Your task to perform on an android device: Go to Wikipedia Image 0: 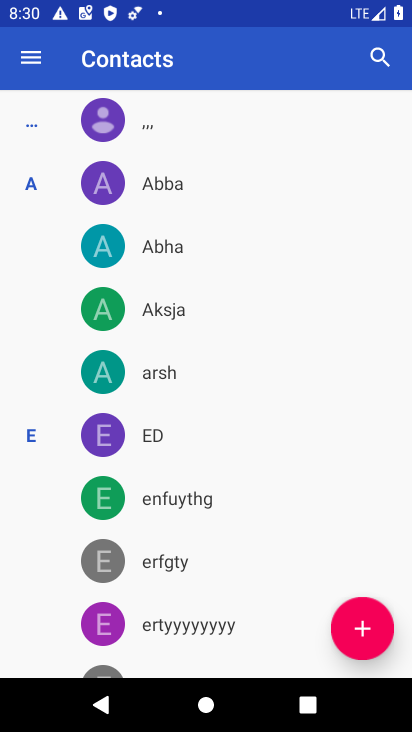
Step 0: press home button
Your task to perform on an android device: Go to Wikipedia Image 1: 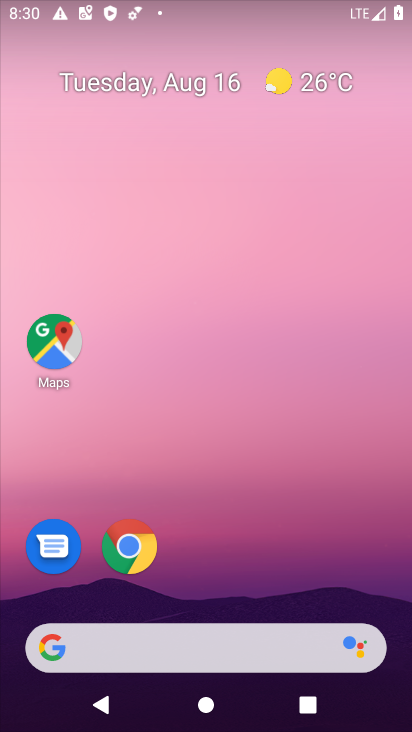
Step 1: click (122, 551)
Your task to perform on an android device: Go to Wikipedia Image 2: 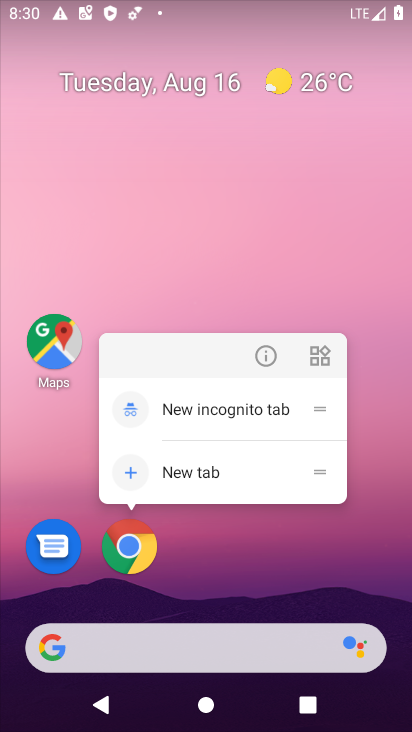
Step 2: click (136, 545)
Your task to perform on an android device: Go to Wikipedia Image 3: 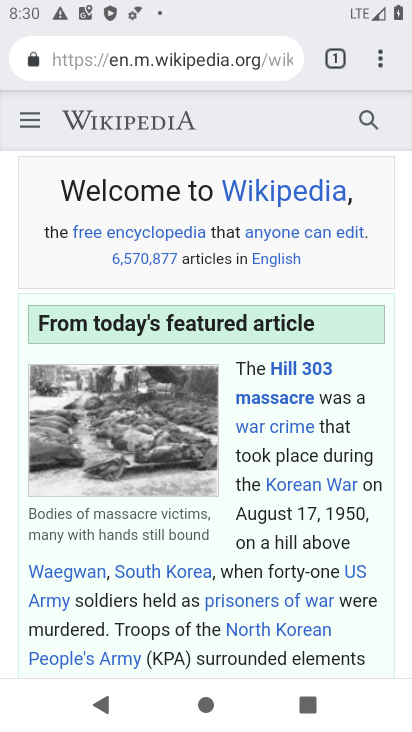
Step 3: task complete